Your task to perform on an android device: Open battery settings Image 0: 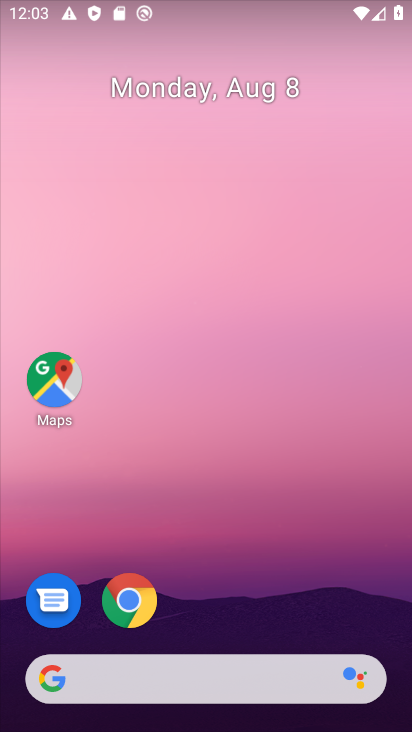
Step 0: drag from (231, 592) to (231, 105)
Your task to perform on an android device: Open battery settings Image 1: 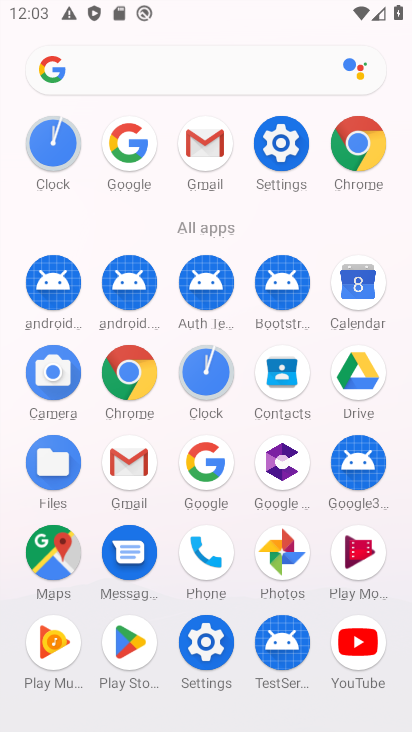
Step 1: click (269, 140)
Your task to perform on an android device: Open battery settings Image 2: 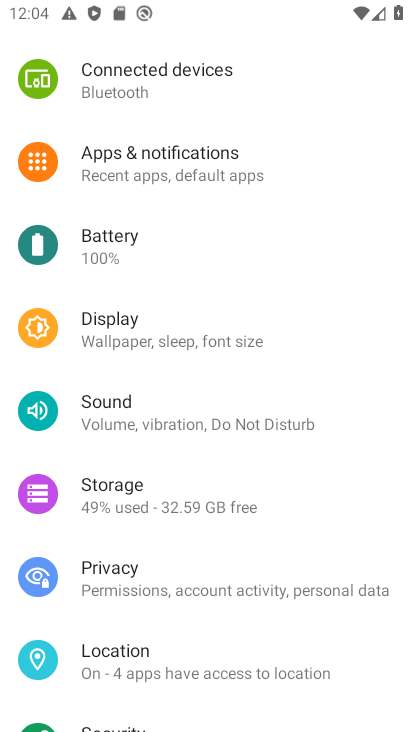
Step 2: click (170, 257)
Your task to perform on an android device: Open battery settings Image 3: 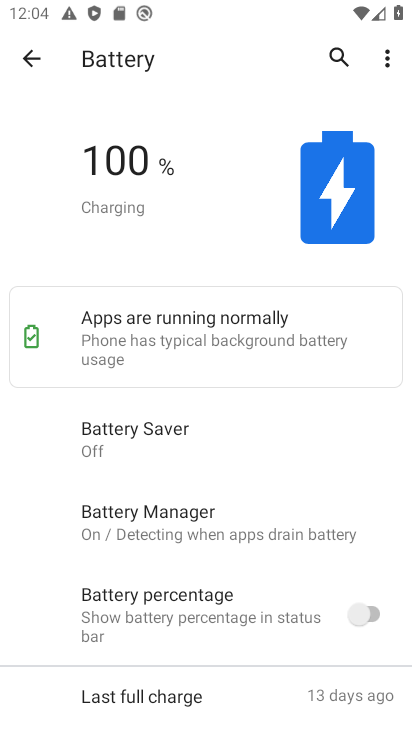
Step 3: task complete